Your task to perform on an android device: Open notification settings Image 0: 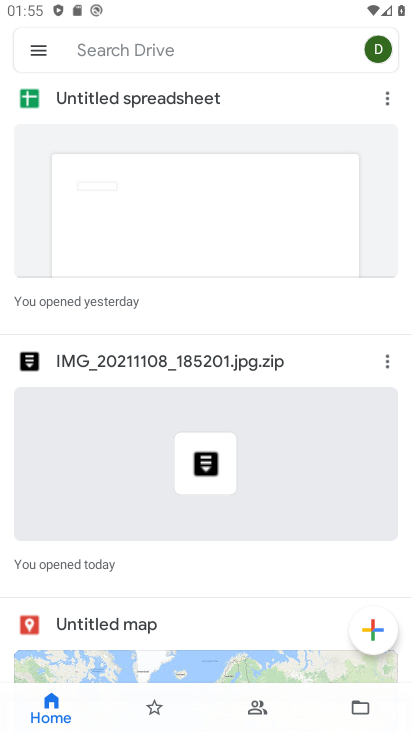
Step 0: press home button
Your task to perform on an android device: Open notification settings Image 1: 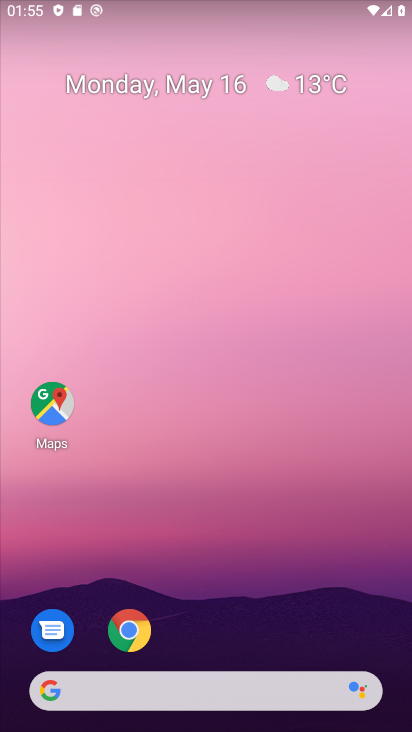
Step 1: drag from (324, 520) to (330, 177)
Your task to perform on an android device: Open notification settings Image 2: 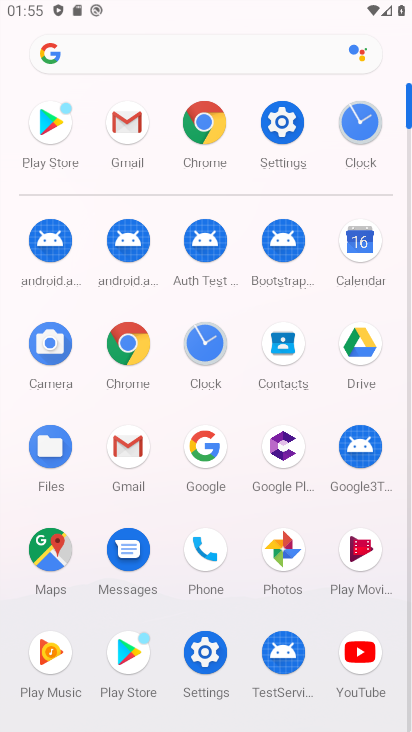
Step 2: click (277, 134)
Your task to perform on an android device: Open notification settings Image 3: 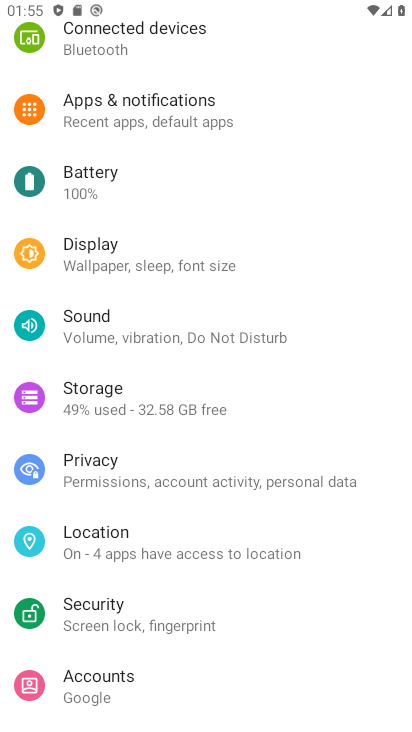
Step 3: click (204, 130)
Your task to perform on an android device: Open notification settings Image 4: 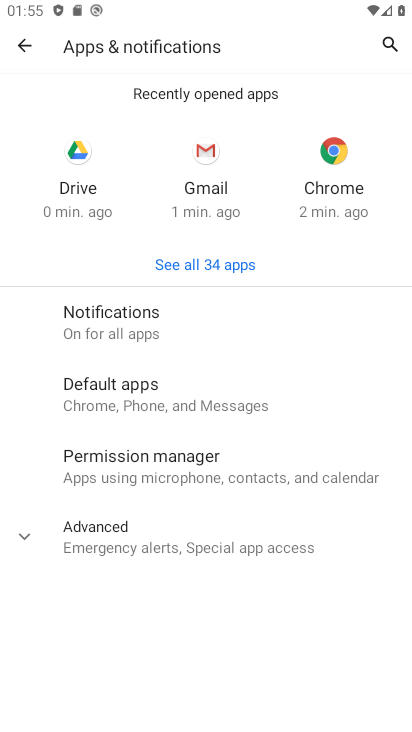
Step 4: click (175, 339)
Your task to perform on an android device: Open notification settings Image 5: 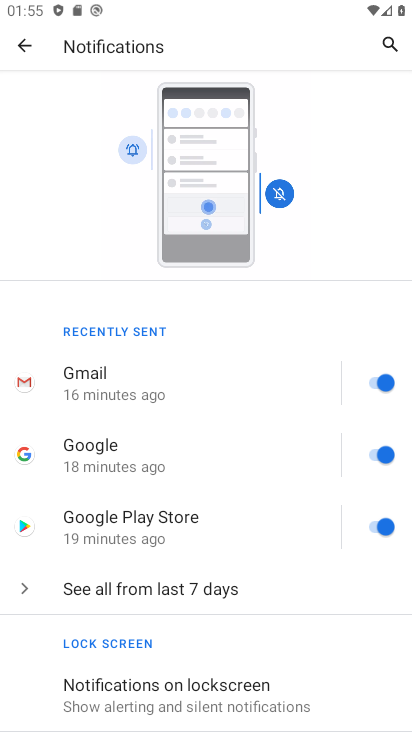
Step 5: task complete